Your task to perform on an android device: Open Yahoo.com Image 0: 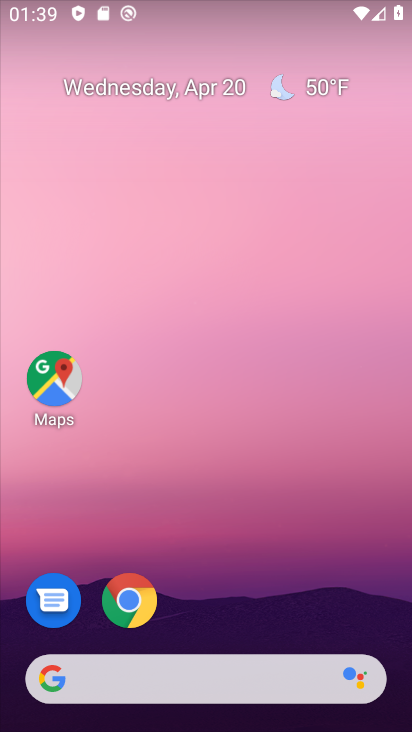
Step 0: click (128, 587)
Your task to perform on an android device: Open Yahoo.com Image 1: 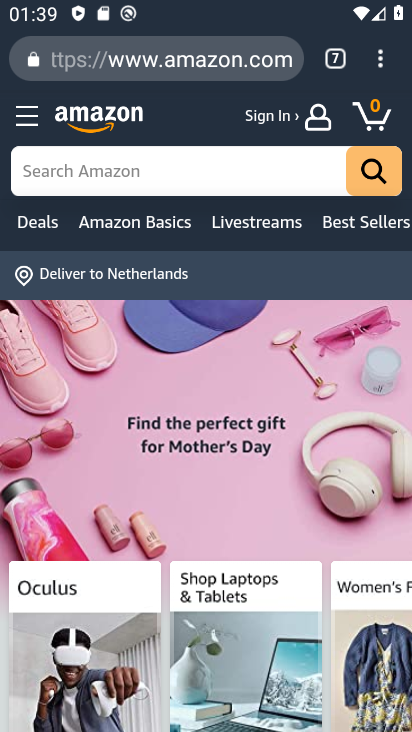
Step 1: click (332, 50)
Your task to perform on an android device: Open Yahoo.com Image 2: 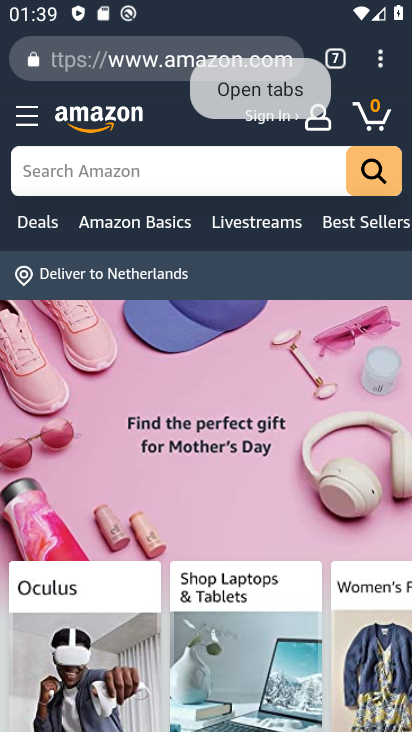
Step 2: click (305, 90)
Your task to perform on an android device: Open Yahoo.com Image 3: 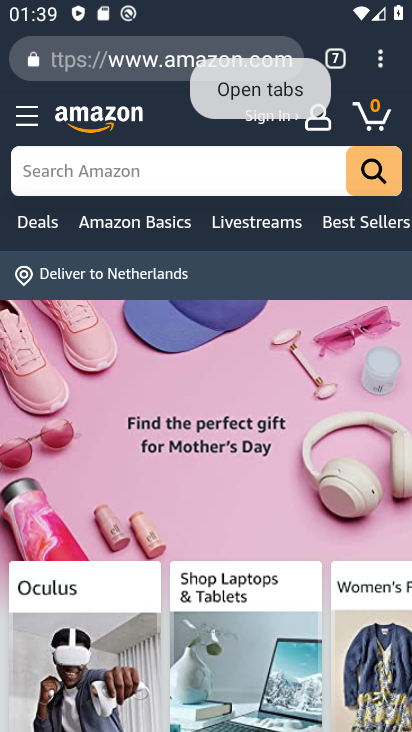
Step 3: click (329, 62)
Your task to perform on an android device: Open Yahoo.com Image 4: 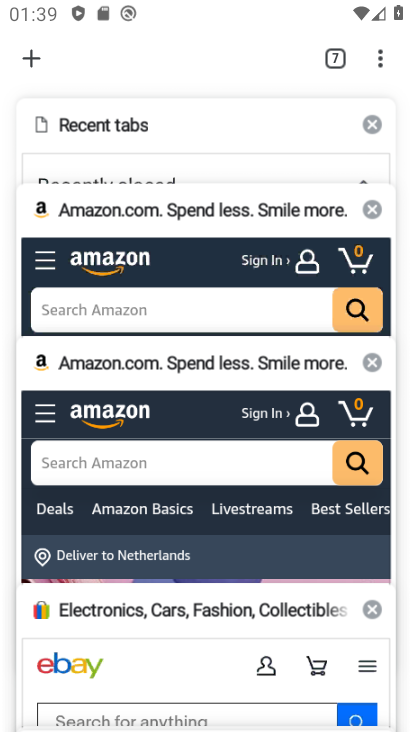
Step 4: drag from (184, 187) to (142, 413)
Your task to perform on an android device: Open Yahoo.com Image 5: 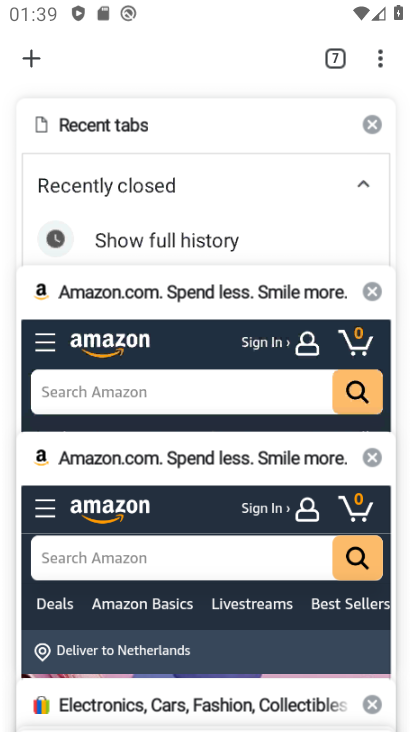
Step 5: drag from (177, 115) to (153, 55)
Your task to perform on an android device: Open Yahoo.com Image 6: 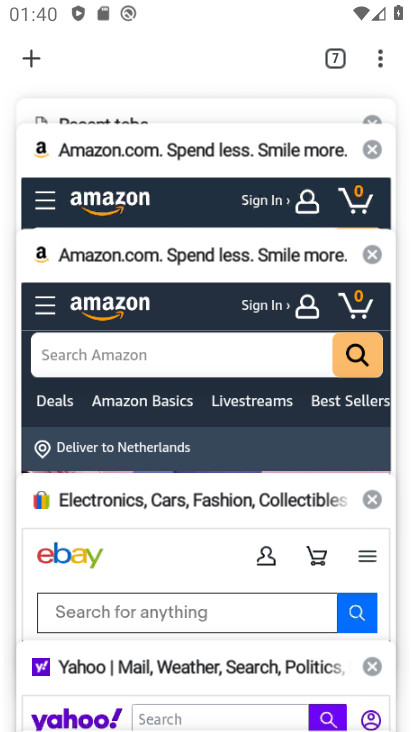
Step 6: click (22, 60)
Your task to perform on an android device: Open Yahoo.com Image 7: 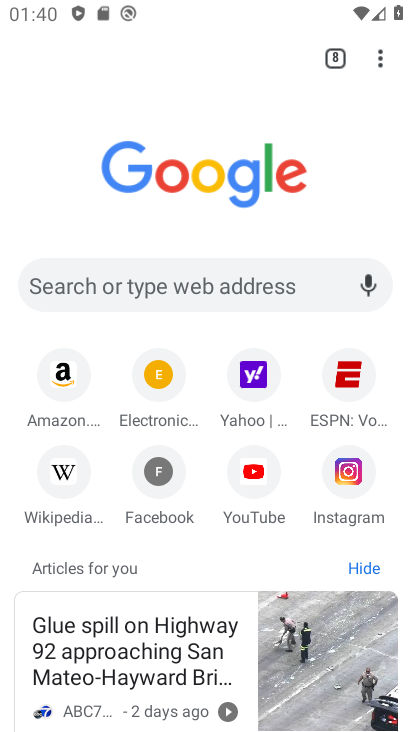
Step 7: click (261, 378)
Your task to perform on an android device: Open Yahoo.com Image 8: 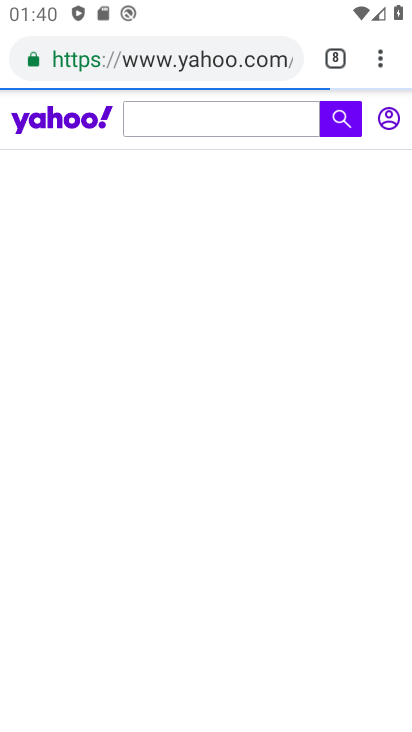
Step 8: task complete